Your task to perform on an android device: change notification settings in the gmail app Image 0: 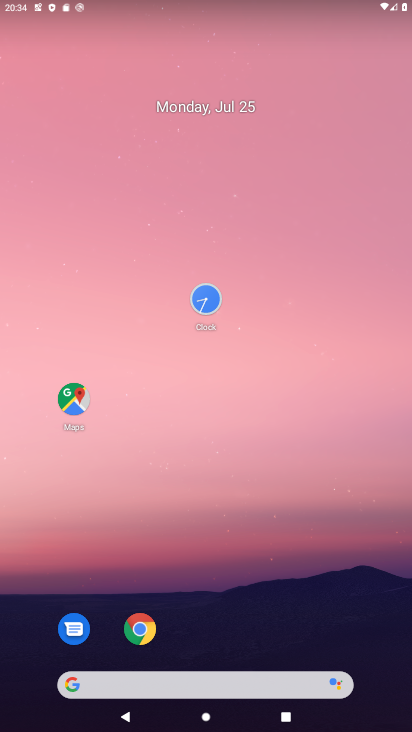
Step 0: drag from (227, 600) to (161, 0)
Your task to perform on an android device: change notification settings in the gmail app Image 1: 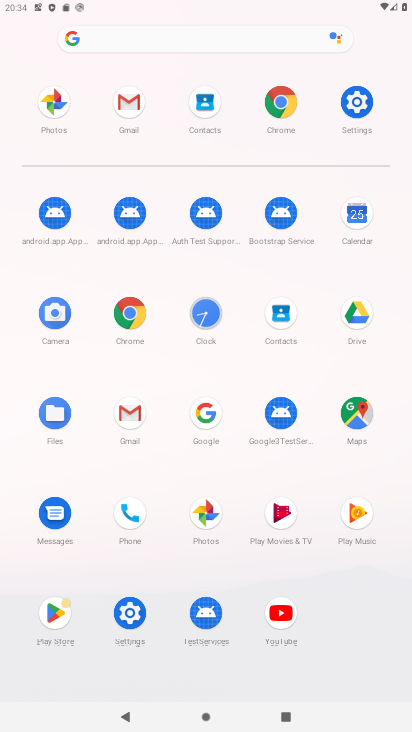
Step 1: click (128, 414)
Your task to perform on an android device: change notification settings in the gmail app Image 2: 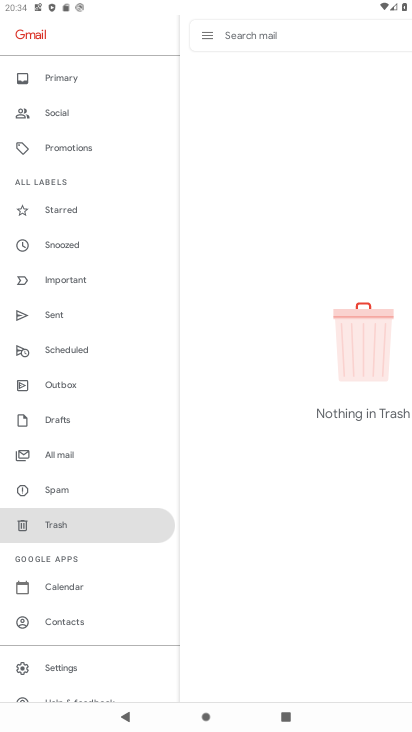
Step 2: drag from (49, 632) to (127, 258)
Your task to perform on an android device: change notification settings in the gmail app Image 3: 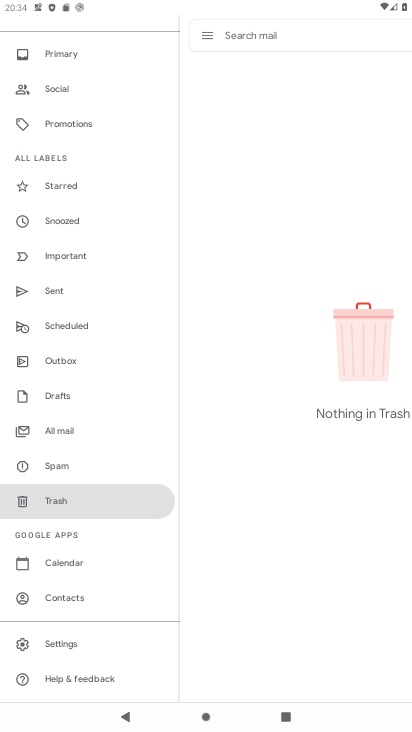
Step 3: click (67, 644)
Your task to perform on an android device: change notification settings in the gmail app Image 4: 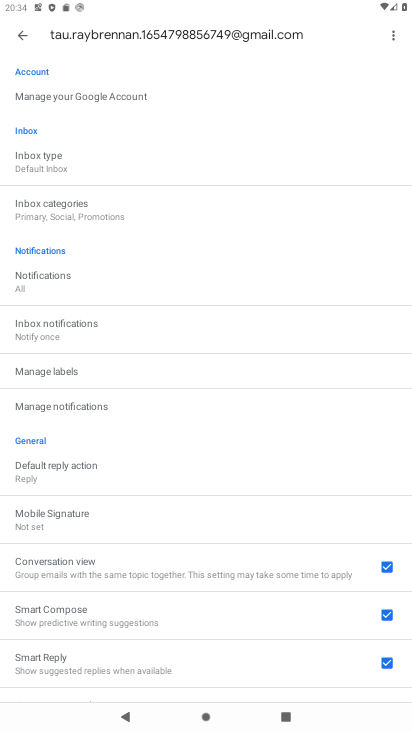
Step 4: click (23, 33)
Your task to perform on an android device: change notification settings in the gmail app Image 5: 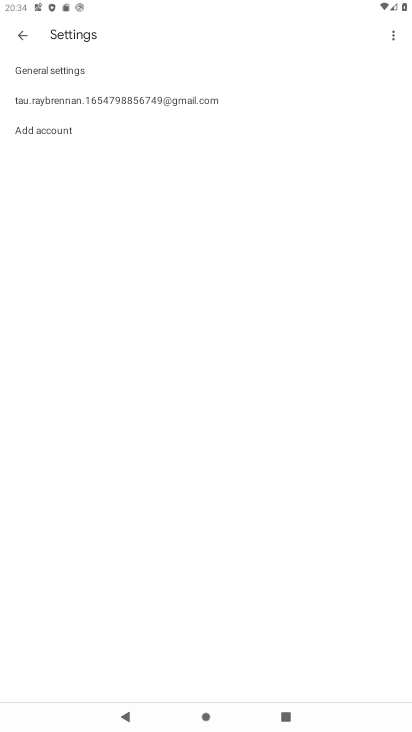
Step 5: click (59, 69)
Your task to perform on an android device: change notification settings in the gmail app Image 6: 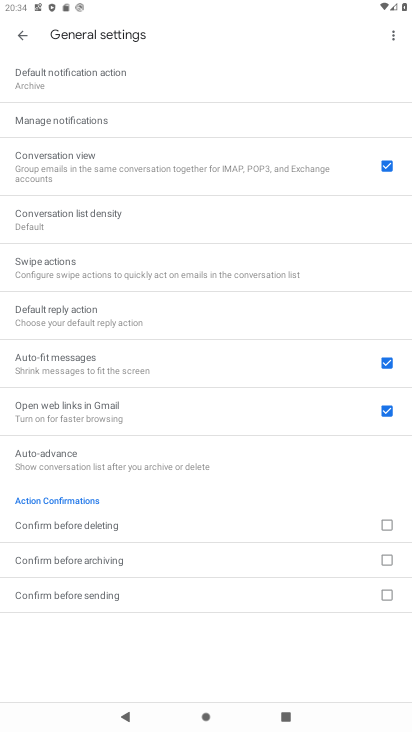
Step 6: click (94, 117)
Your task to perform on an android device: change notification settings in the gmail app Image 7: 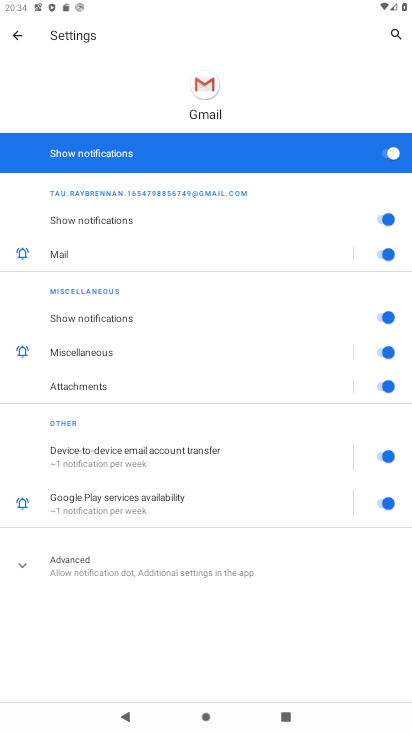
Step 7: click (347, 157)
Your task to perform on an android device: change notification settings in the gmail app Image 8: 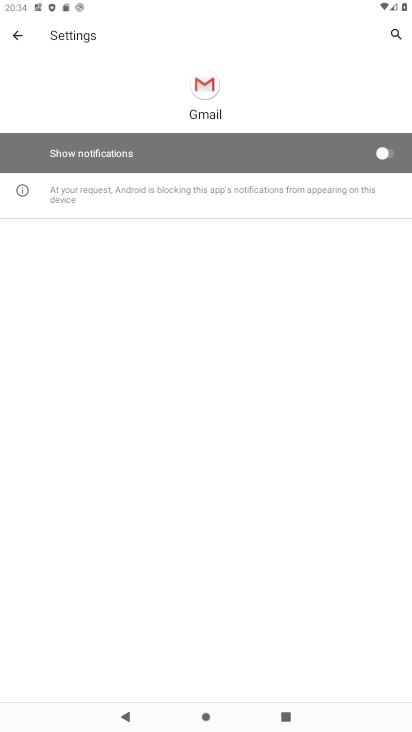
Step 8: task complete